Your task to perform on an android device: Clear all items from cart on newegg.com. Search for lg ultragear on newegg.com, select the first entry, add it to the cart, then select checkout. Image 0: 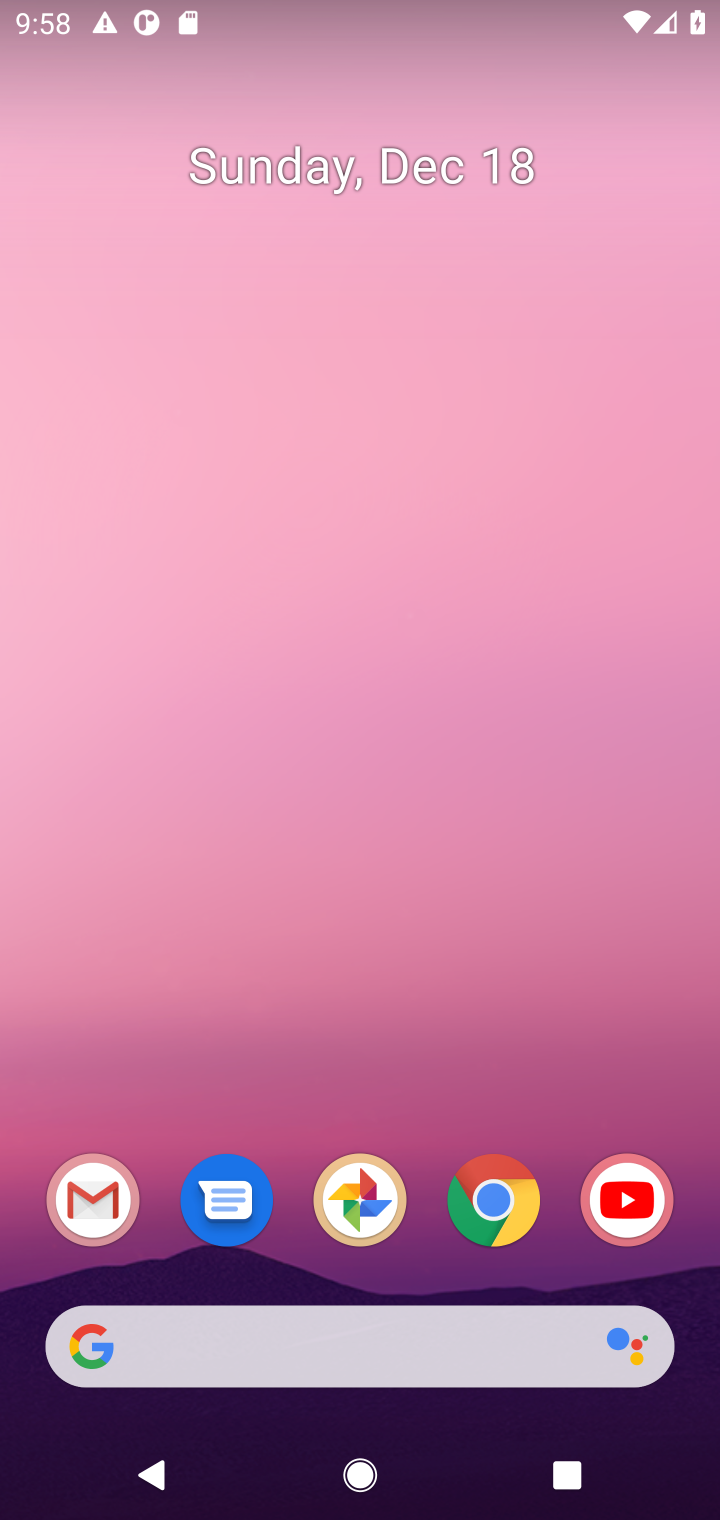
Step 0: click (517, 1194)
Your task to perform on an android device: Clear all items from cart on newegg.com. Search for lg ultragear on newegg.com, select the first entry, add it to the cart, then select checkout. Image 1: 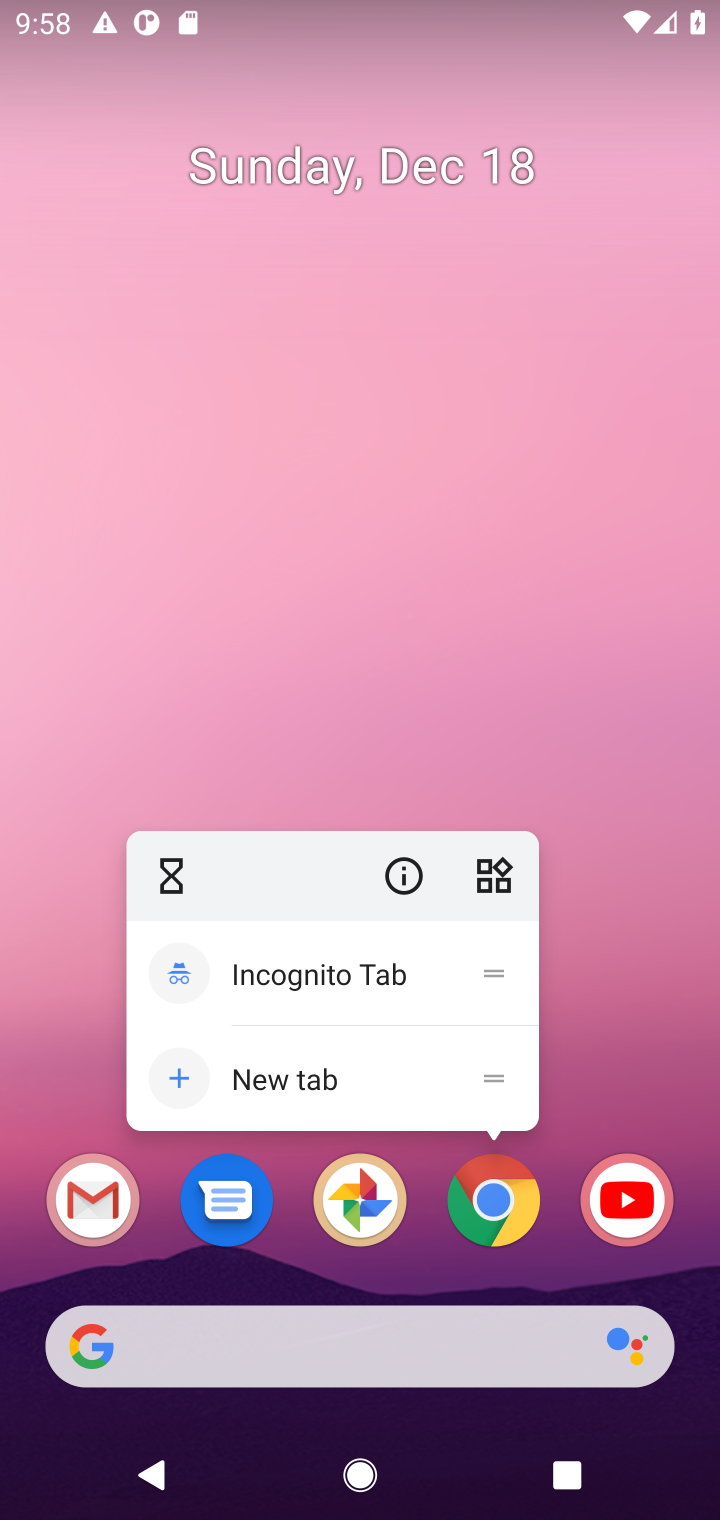
Step 1: click (487, 1209)
Your task to perform on an android device: Clear all items from cart on newegg.com. Search for lg ultragear on newegg.com, select the first entry, add it to the cart, then select checkout. Image 2: 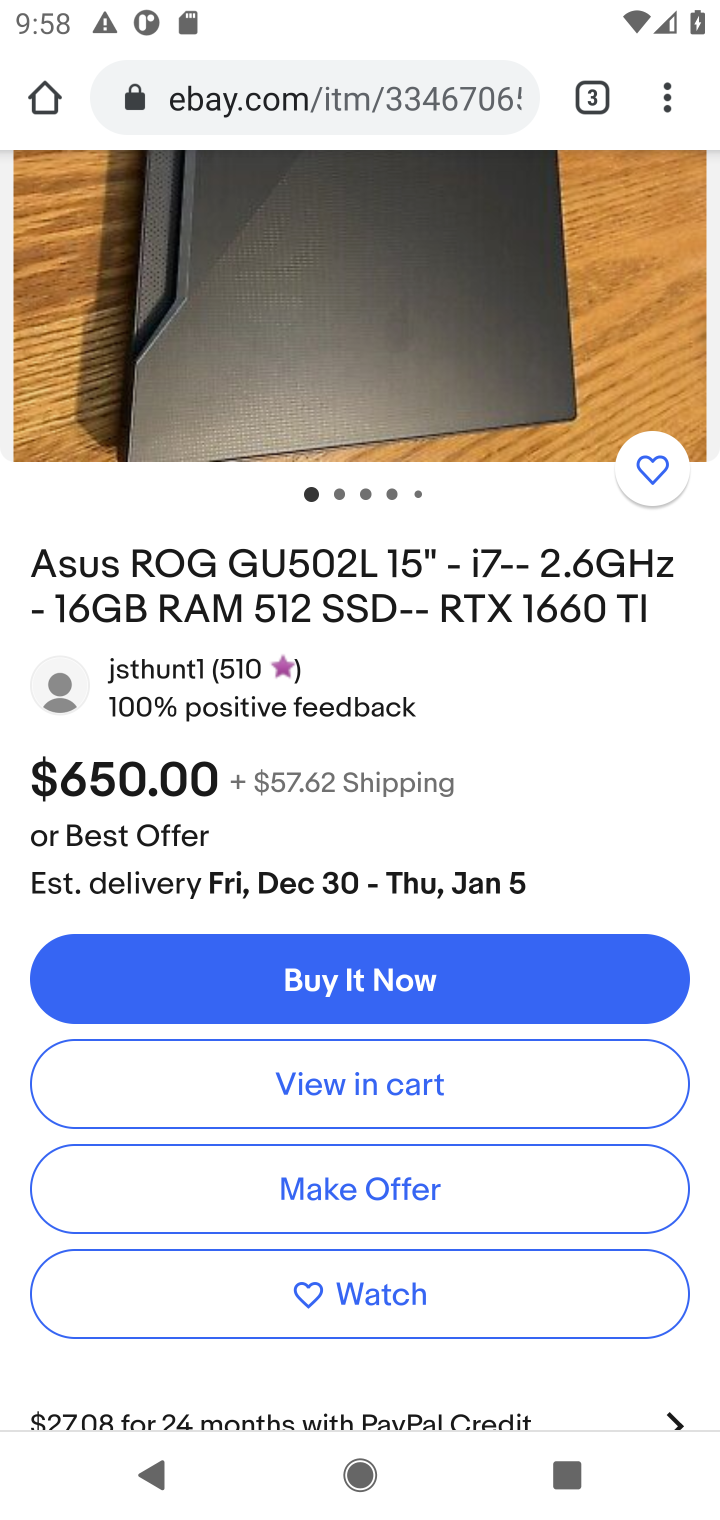
Step 2: click (267, 101)
Your task to perform on an android device: Clear all items from cart on newegg.com. Search for lg ultragear on newegg.com, select the first entry, add it to the cart, then select checkout. Image 3: 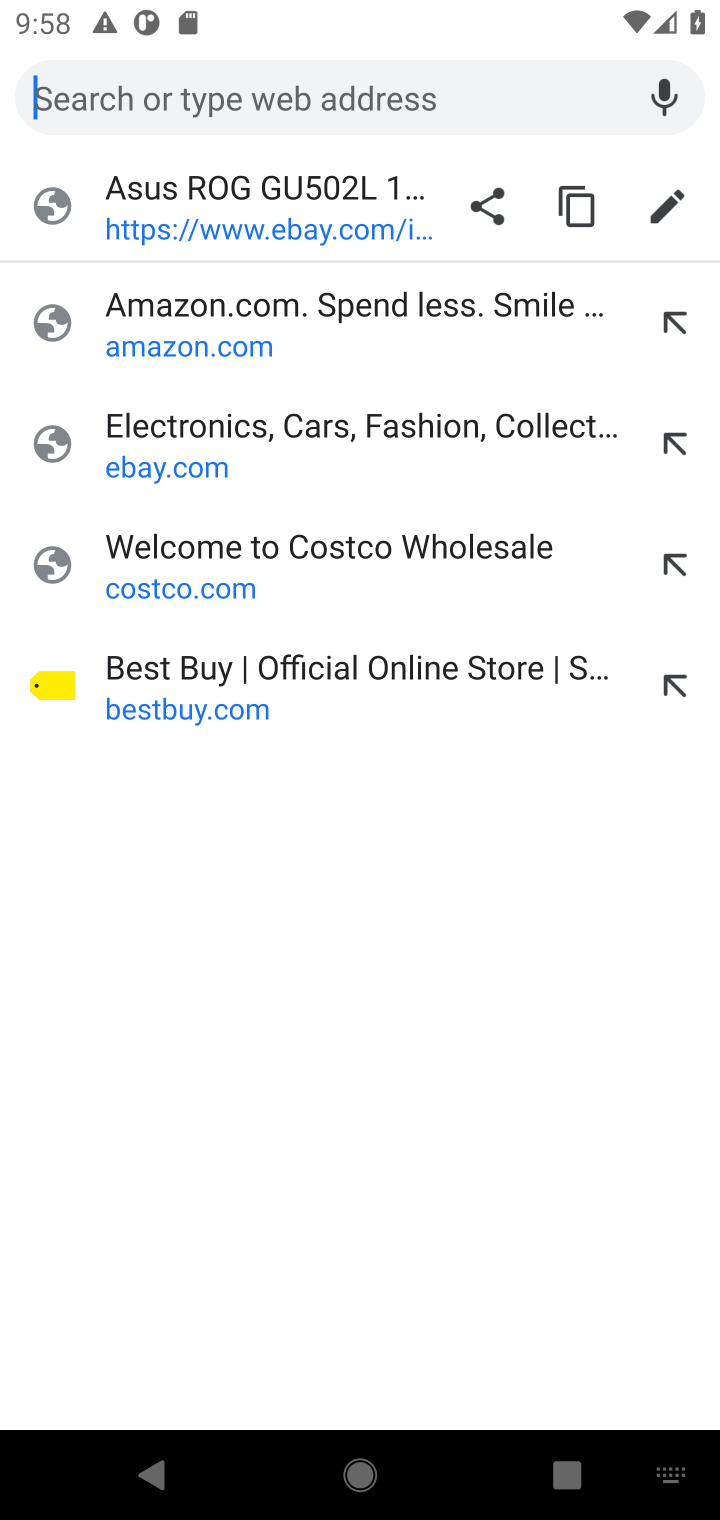
Step 3: type "newegg.com"
Your task to perform on an android device: Clear all items from cart on newegg.com. Search for lg ultragear on newegg.com, select the first entry, add it to the cart, then select checkout. Image 4: 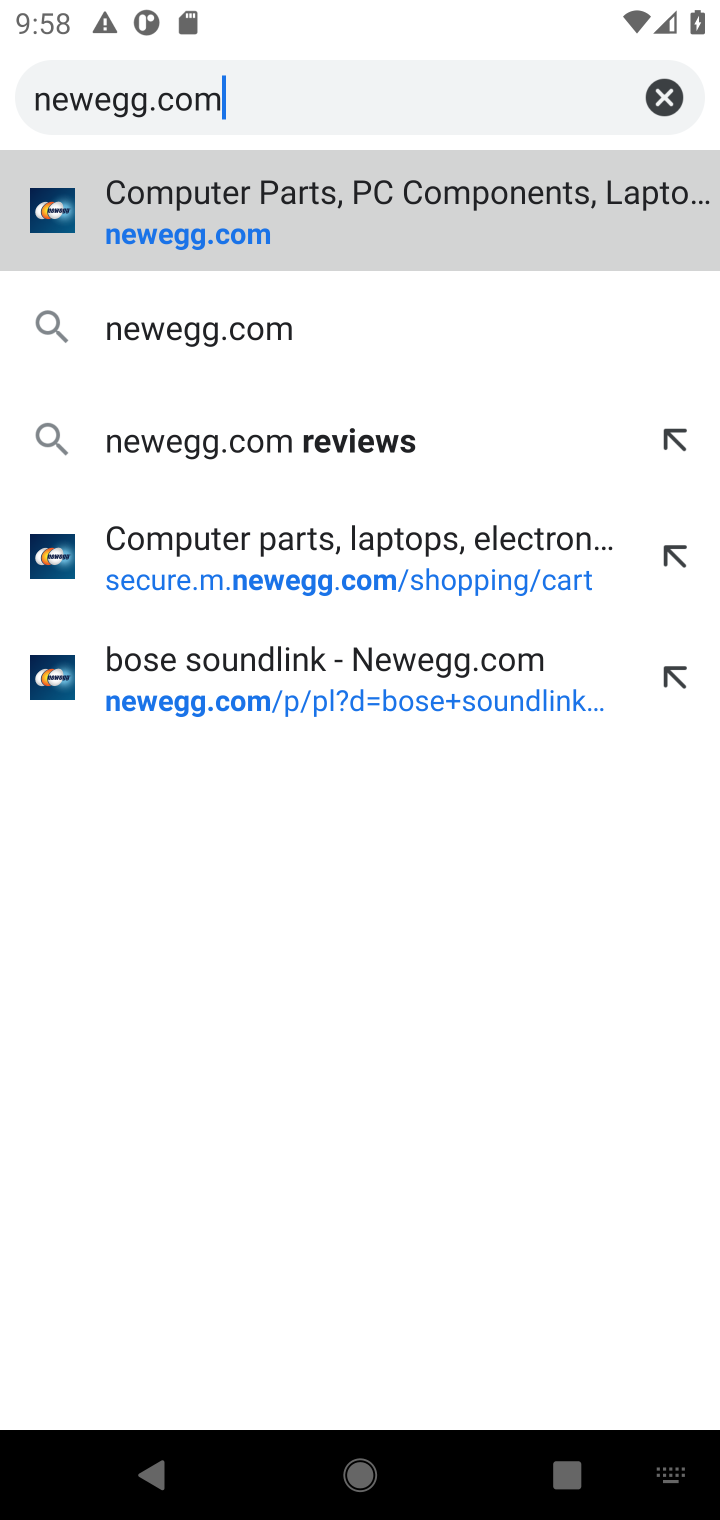
Step 4: click (190, 257)
Your task to perform on an android device: Clear all items from cart on newegg.com. Search for lg ultragear on newegg.com, select the first entry, add it to the cart, then select checkout. Image 5: 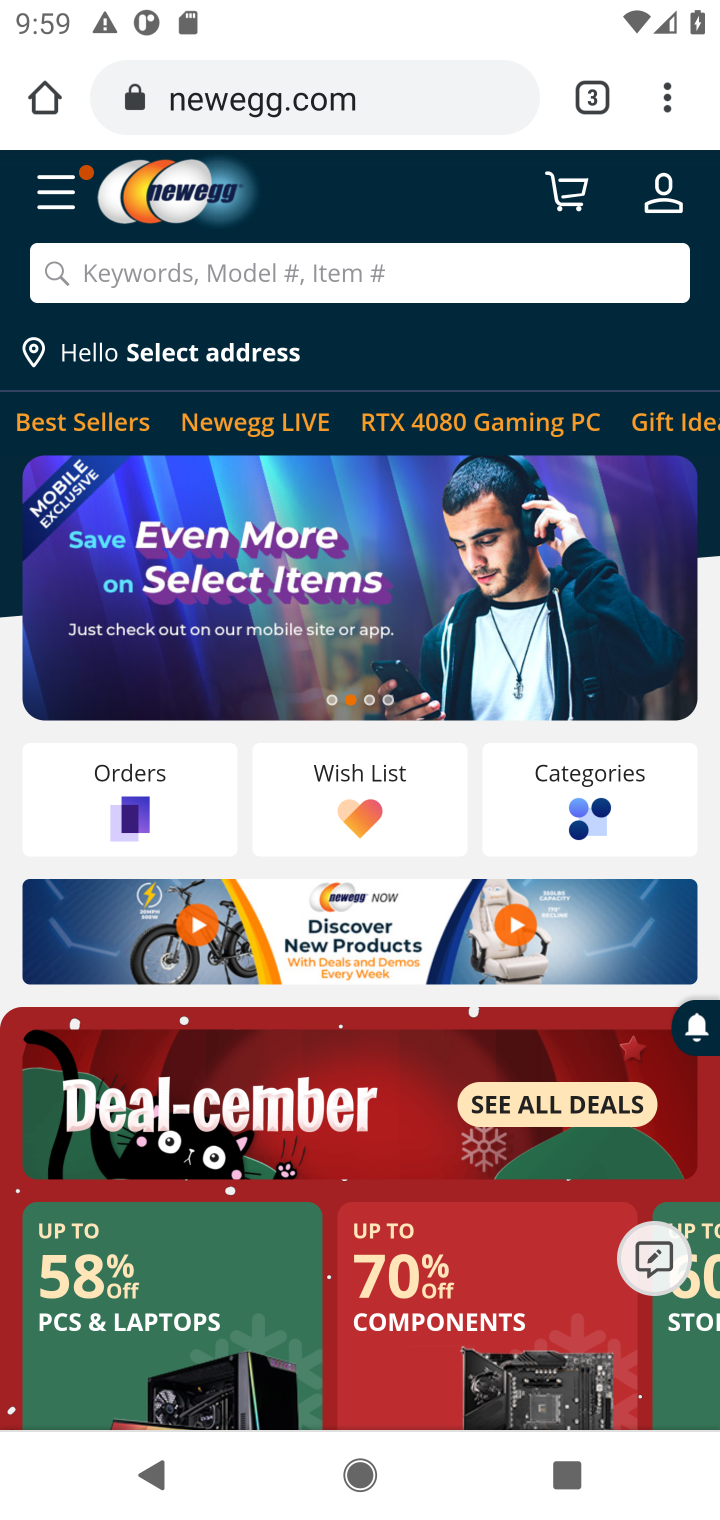
Step 5: click (566, 204)
Your task to perform on an android device: Clear all items from cart on newegg.com. Search for lg ultragear on newegg.com, select the first entry, add it to the cart, then select checkout. Image 6: 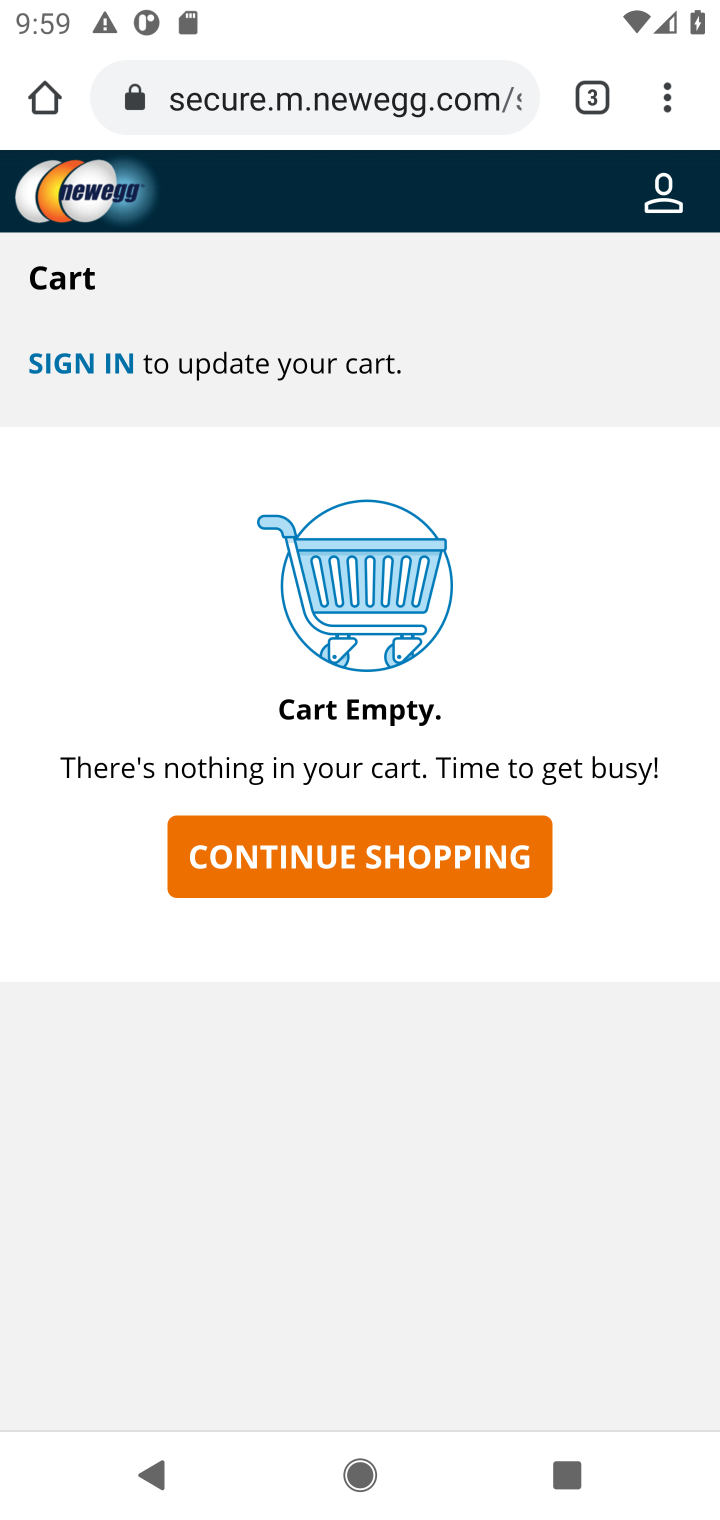
Step 6: click (325, 857)
Your task to perform on an android device: Clear all items from cart on newegg.com. Search for lg ultragear on newegg.com, select the first entry, add it to the cart, then select checkout. Image 7: 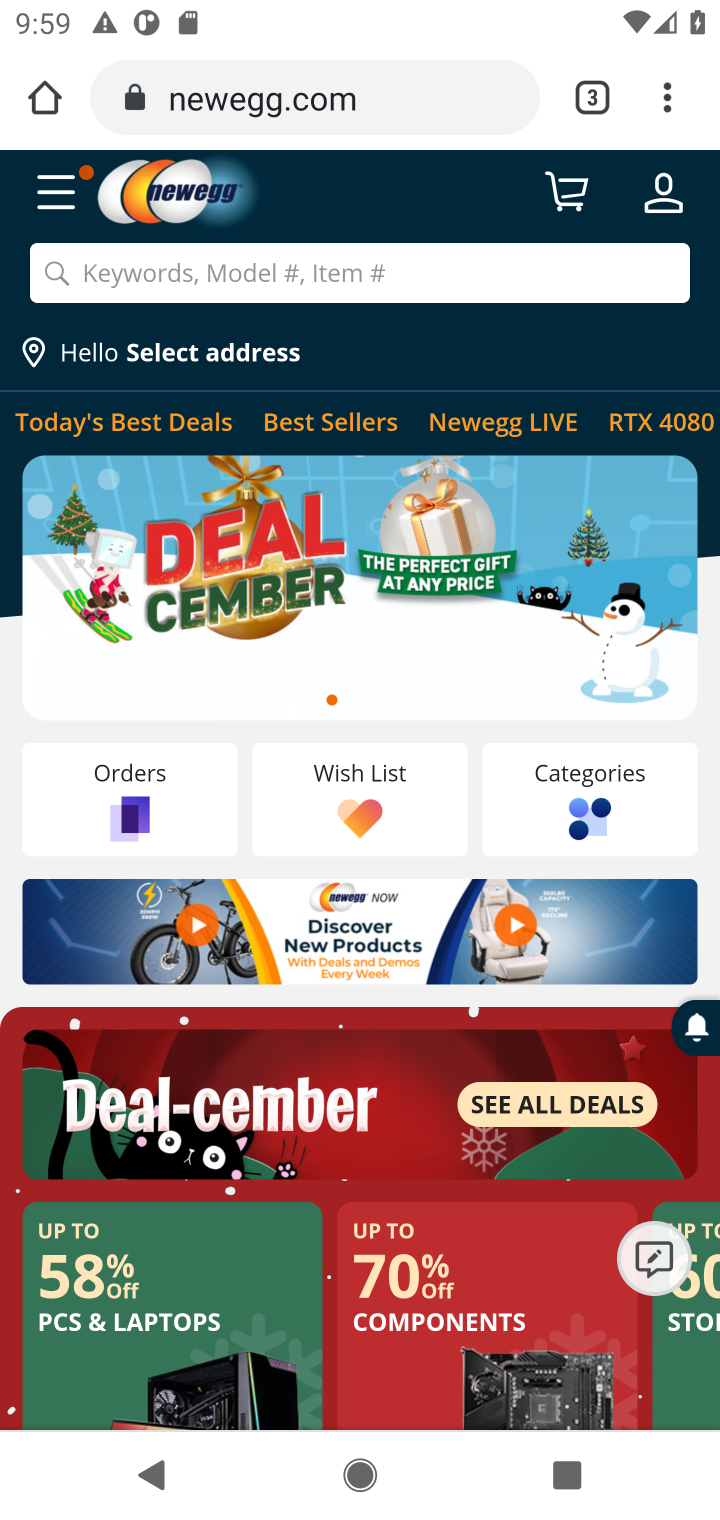
Step 7: click (231, 269)
Your task to perform on an android device: Clear all items from cart on newegg.com. Search for lg ultragear on newegg.com, select the first entry, add it to the cart, then select checkout. Image 8: 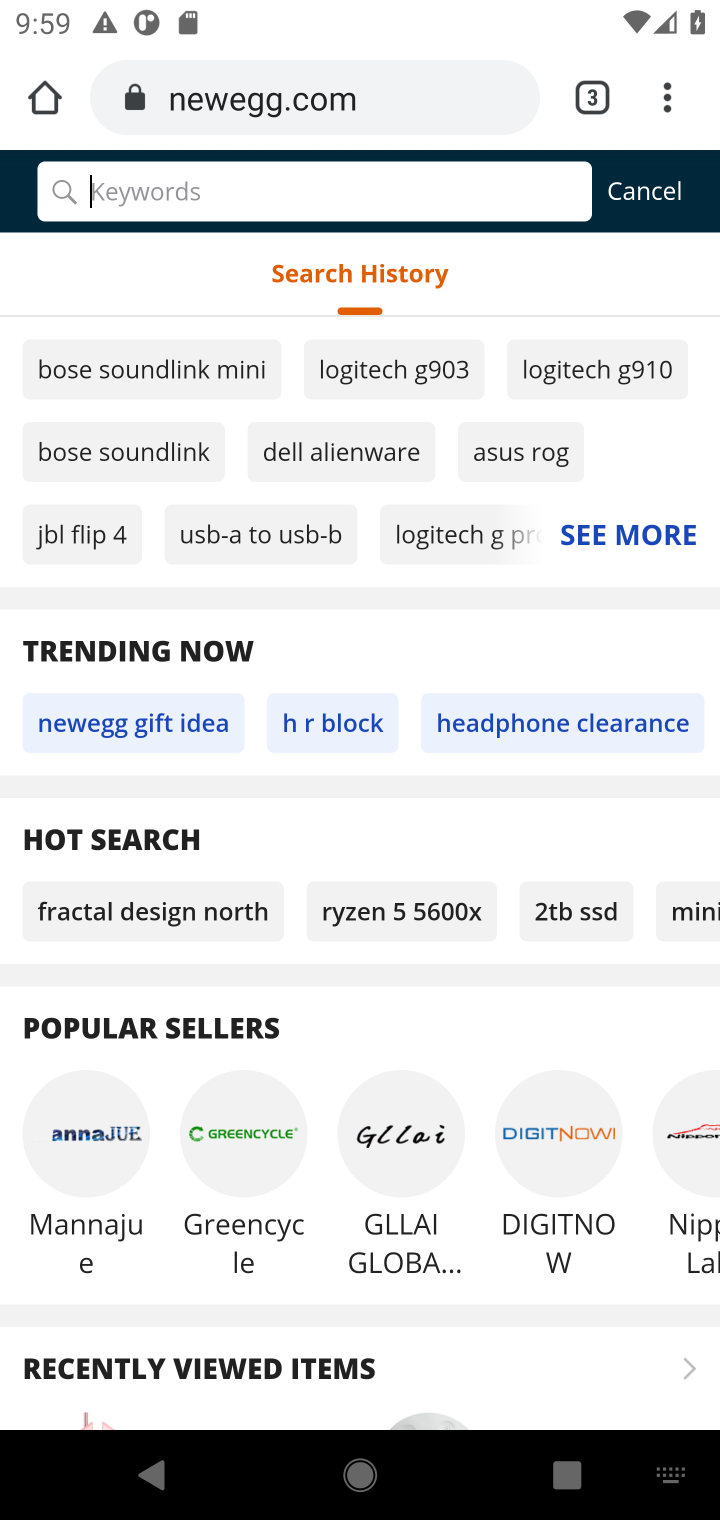
Step 8: type "lg ultragear"
Your task to perform on an android device: Clear all items from cart on newegg.com. Search for lg ultragear on newegg.com, select the first entry, add it to the cart, then select checkout. Image 9: 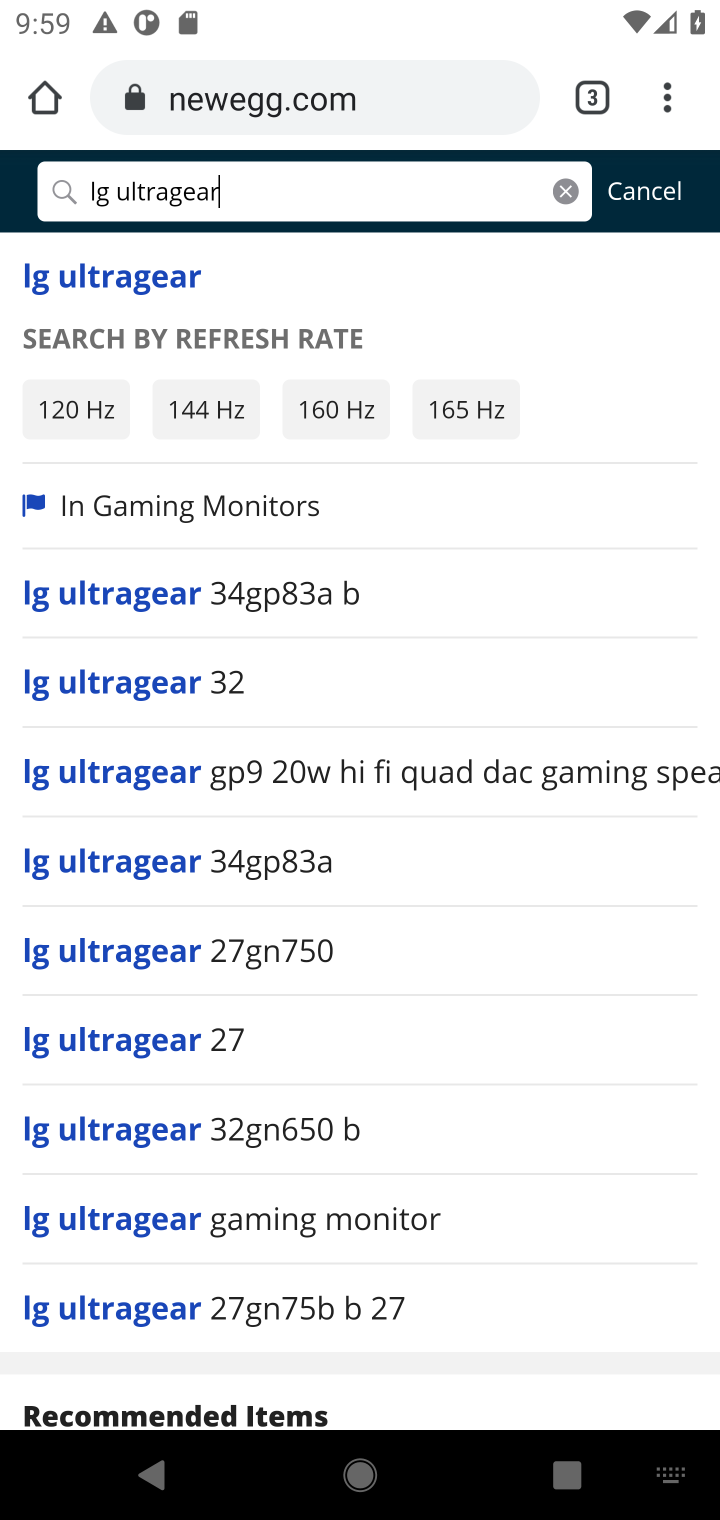
Step 9: click (131, 292)
Your task to perform on an android device: Clear all items from cart on newegg.com. Search for lg ultragear on newegg.com, select the first entry, add it to the cart, then select checkout. Image 10: 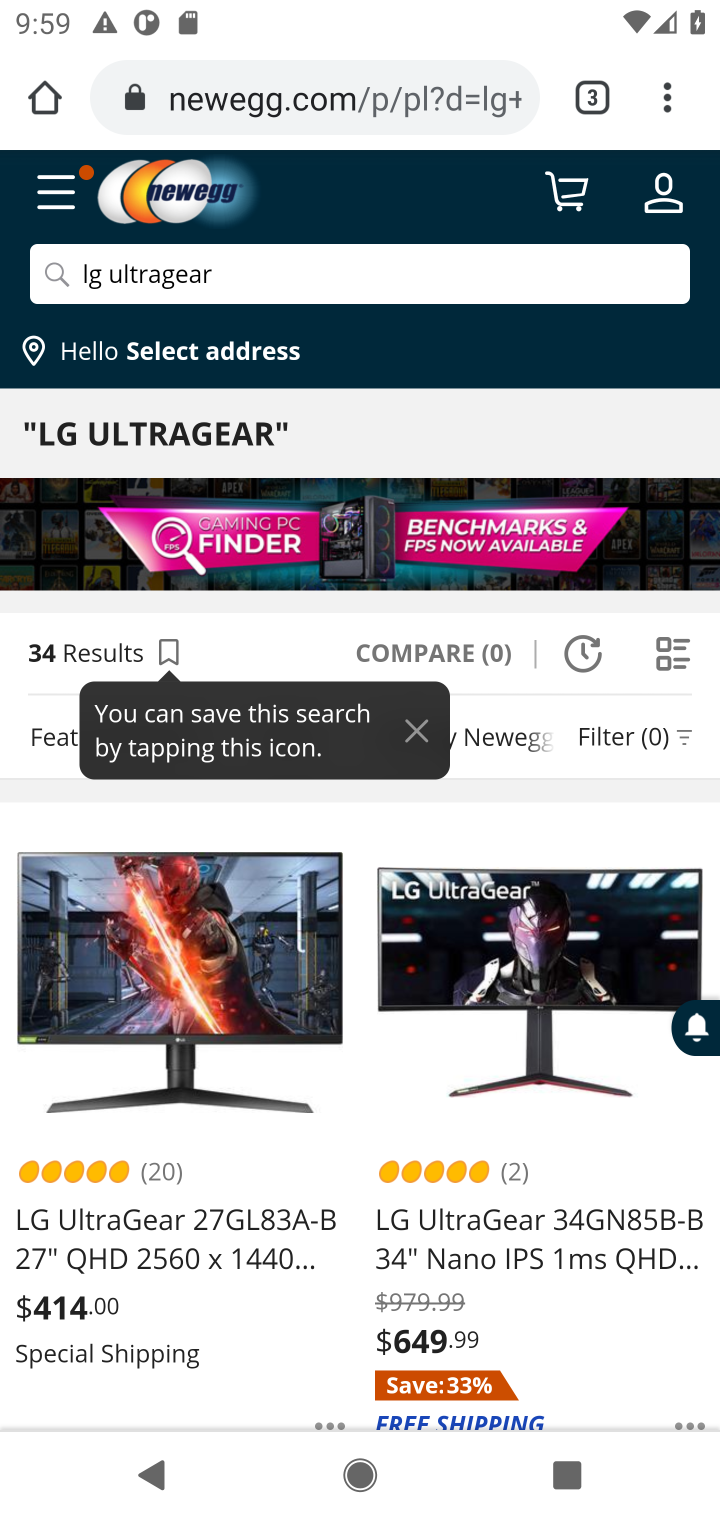
Step 10: click (121, 1238)
Your task to perform on an android device: Clear all items from cart on newegg.com. Search for lg ultragear on newegg.com, select the first entry, add it to the cart, then select checkout. Image 11: 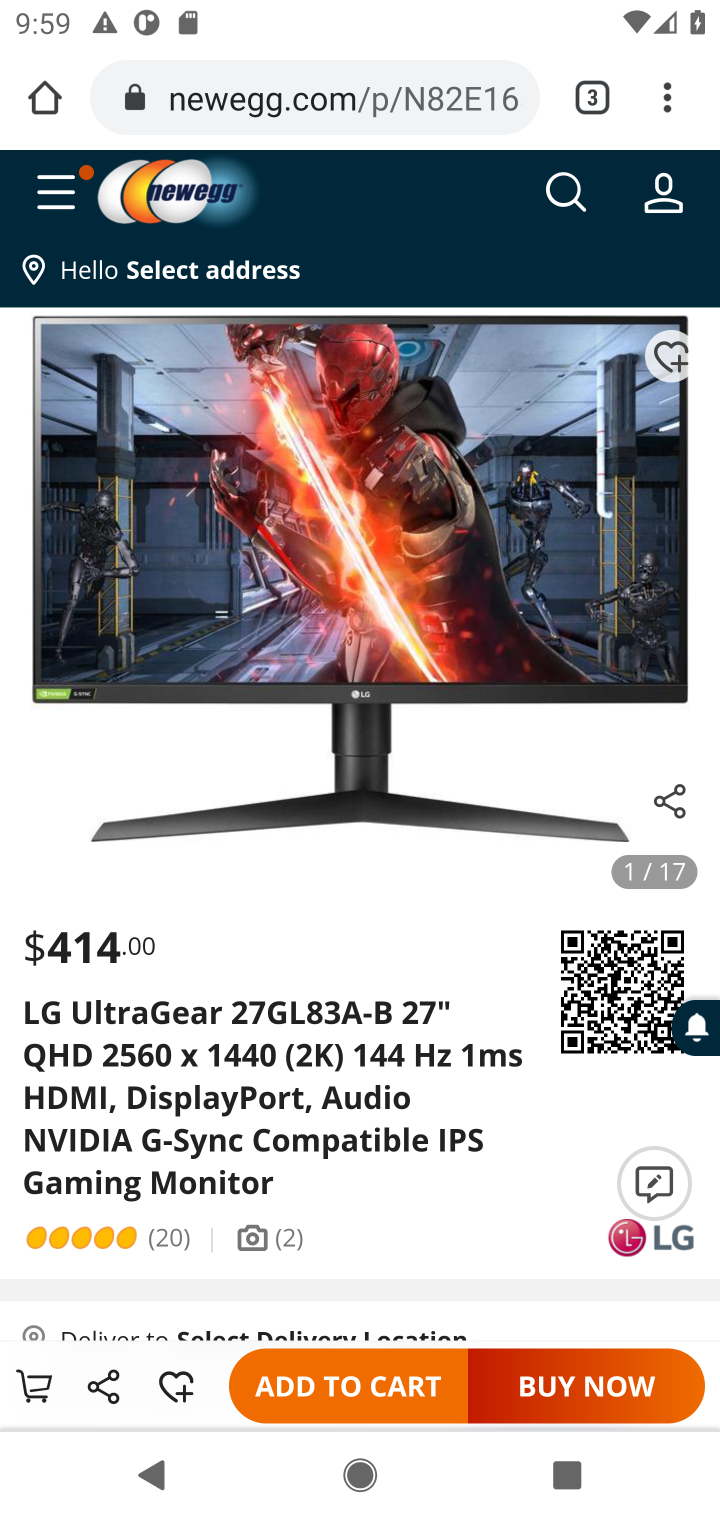
Step 11: click (369, 1390)
Your task to perform on an android device: Clear all items from cart on newegg.com. Search for lg ultragear on newegg.com, select the first entry, add it to the cart, then select checkout. Image 12: 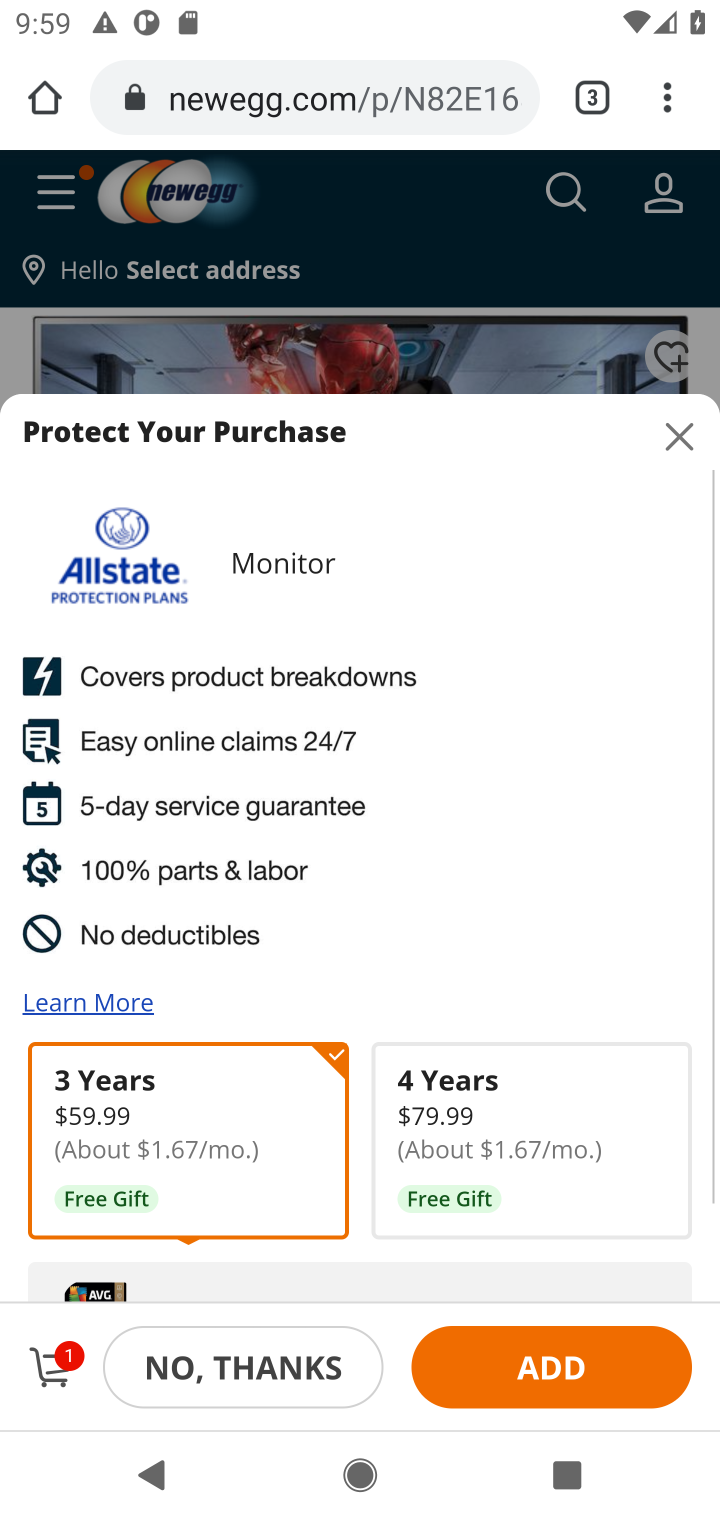
Step 12: click (61, 1369)
Your task to perform on an android device: Clear all items from cart on newegg.com. Search for lg ultragear on newegg.com, select the first entry, add it to the cart, then select checkout. Image 13: 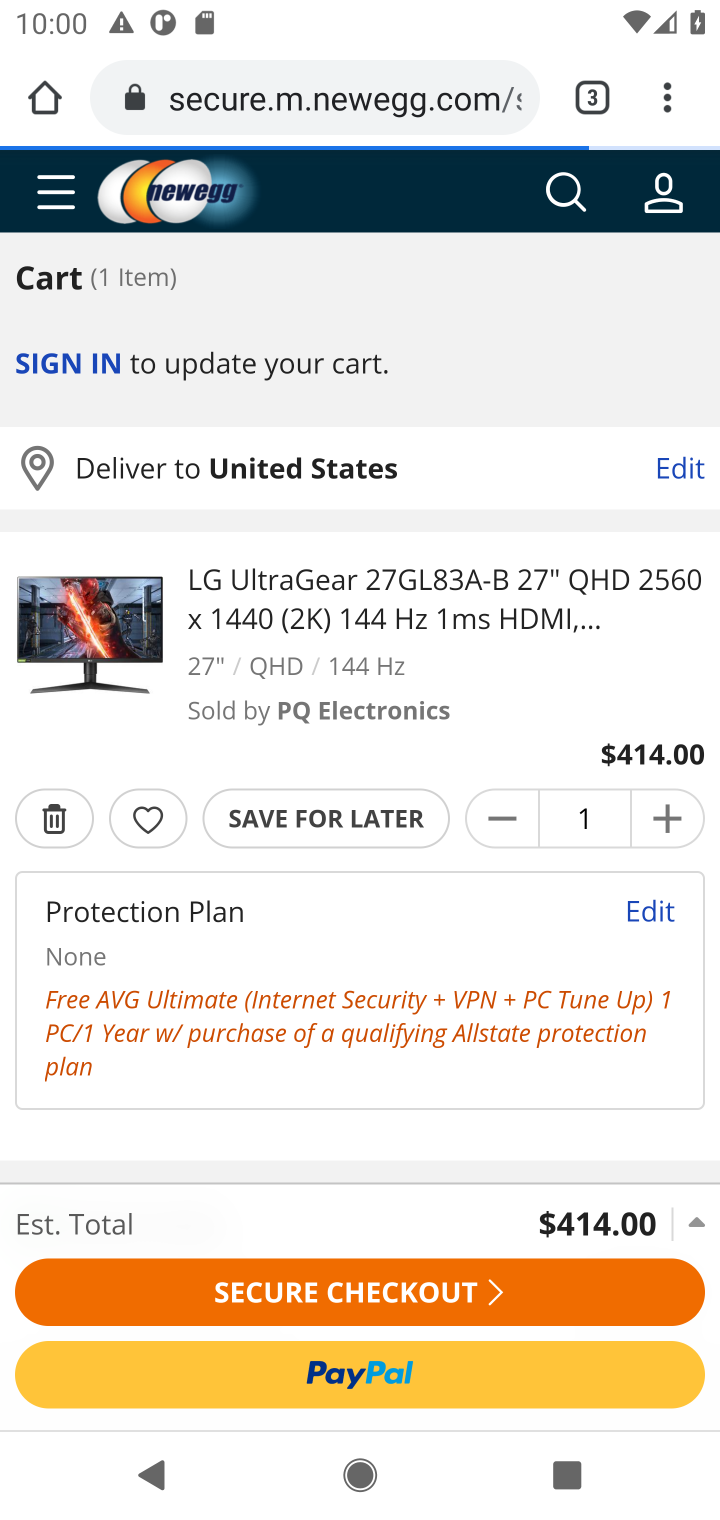
Step 13: click (176, 1364)
Your task to perform on an android device: Clear all items from cart on newegg.com. Search for lg ultragear on newegg.com, select the first entry, add it to the cart, then select checkout. Image 14: 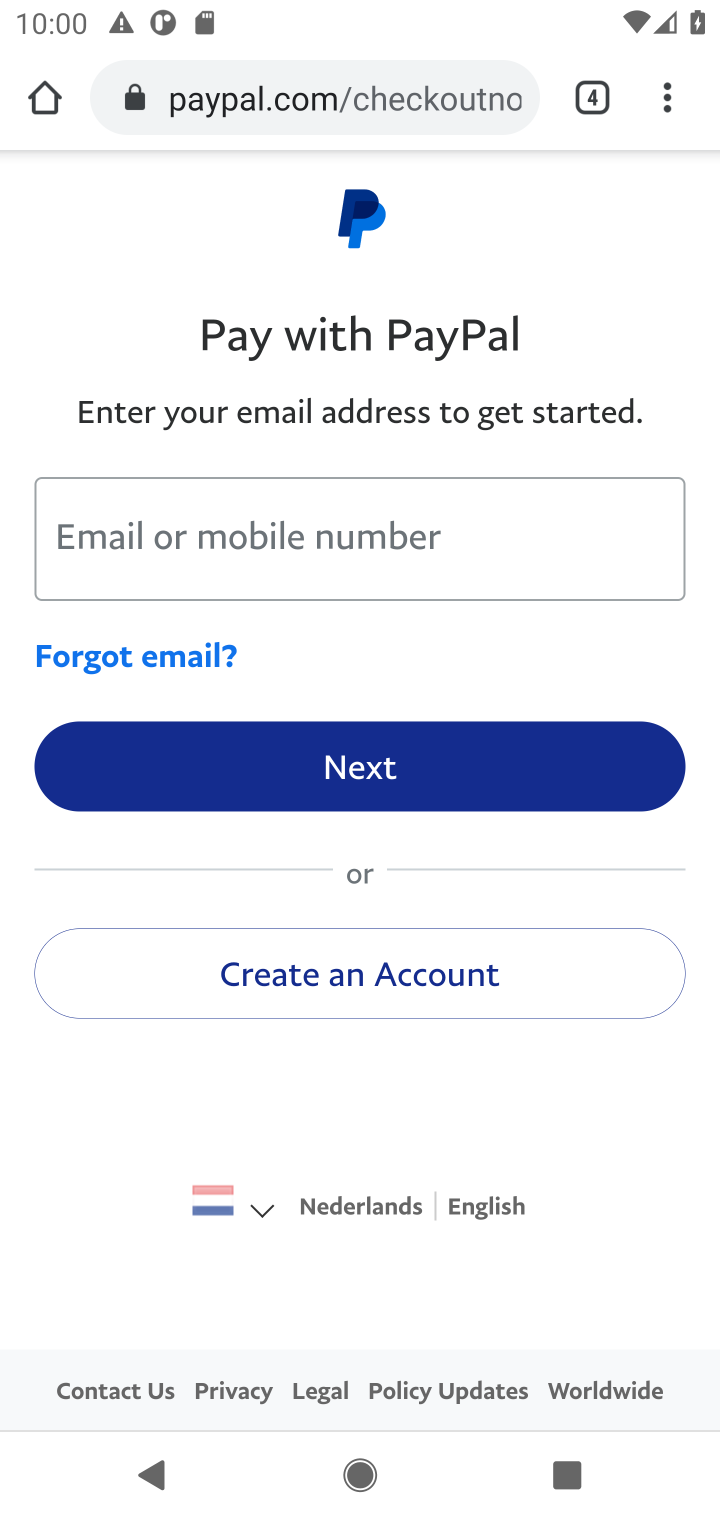
Step 14: task complete